Your task to perform on an android device: Go to internet settings Image 0: 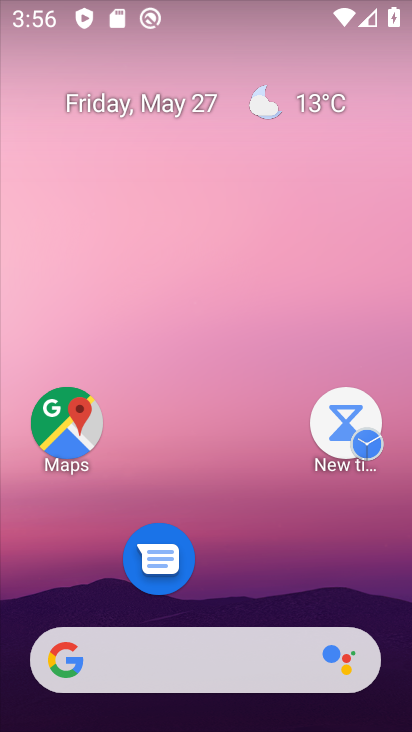
Step 0: drag from (300, 507) to (273, 1)
Your task to perform on an android device: Go to internet settings Image 1: 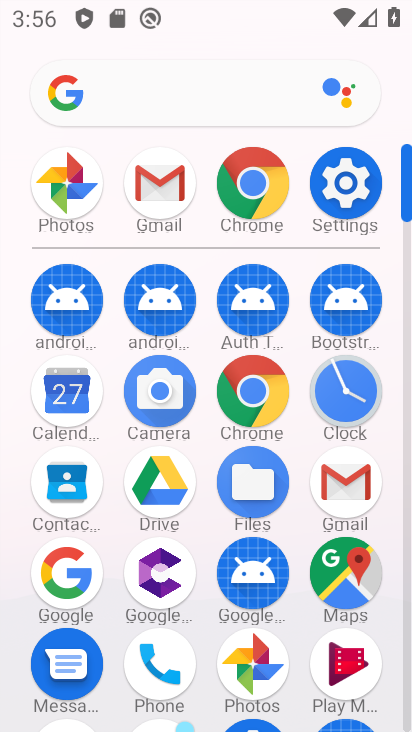
Step 1: click (349, 184)
Your task to perform on an android device: Go to internet settings Image 2: 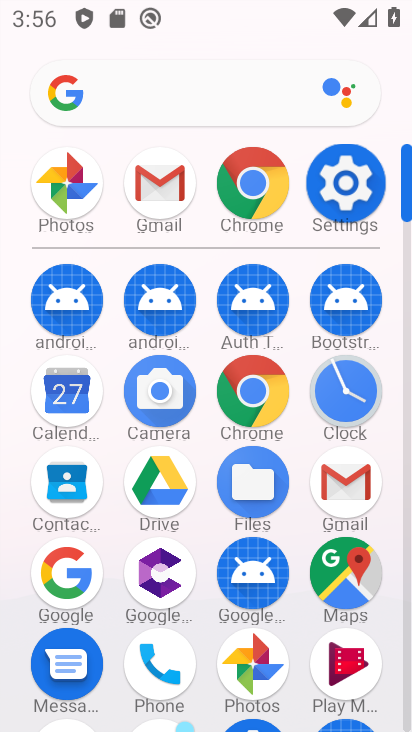
Step 2: click (349, 184)
Your task to perform on an android device: Go to internet settings Image 3: 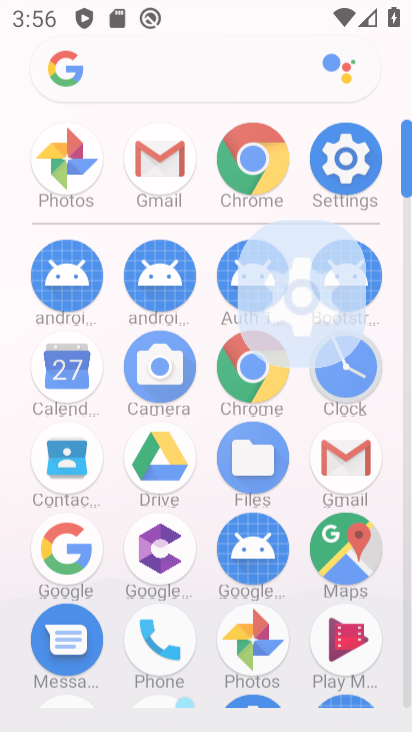
Step 3: click (349, 184)
Your task to perform on an android device: Go to internet settings Image 4: 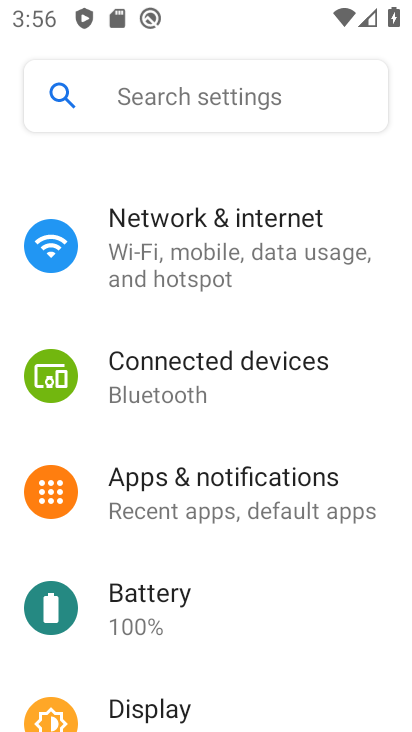
Step 4: click (349, 184)
Your task to perform on an android device: Go to internet settings Image 5: 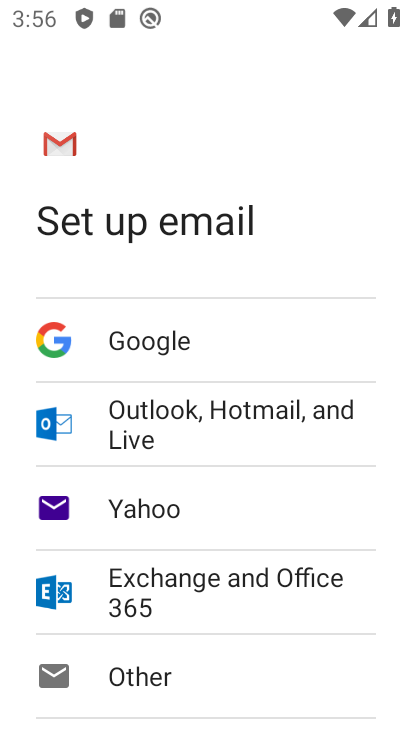
Step 5: drag from (279, 537) to (203, 143)
Your task to perform on an android device: Go to internet settings Image 6: 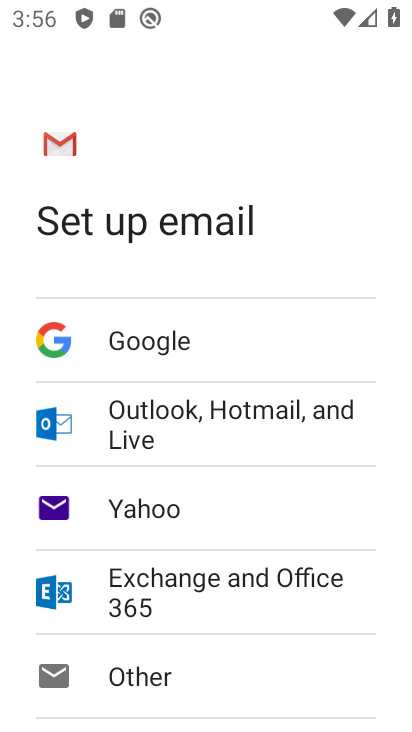
Step 6: drag from (264, 471) to (202, 152)
Your task to perform on an android device: Go to internet settings Image 7: 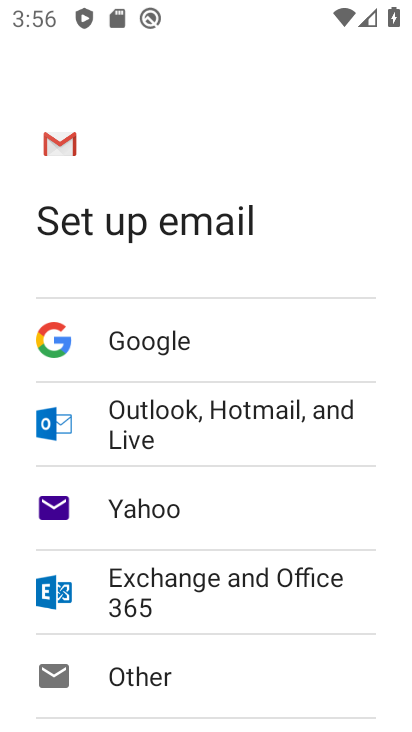
Step 7: drag from (267, 449) to (199, 41)
Your task to perform on an android device: Go to internet settings Image 8: 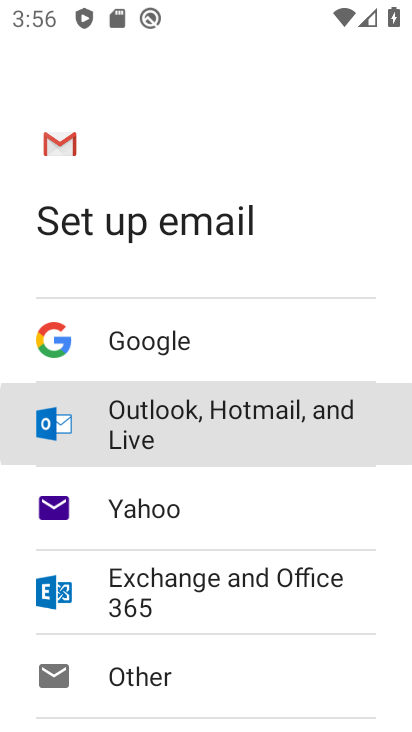
Step 8: drag from (256, 531) to (216, 131)
Your task to perform on an android device: Go to internet settings Image 9: 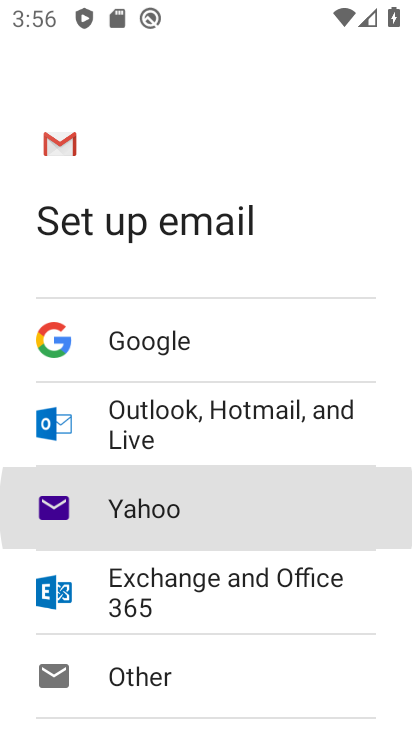
Step 9: drag from (223, 568) to (194, 142)
Your task to perform on an android device: Go to internet settings Image 10: 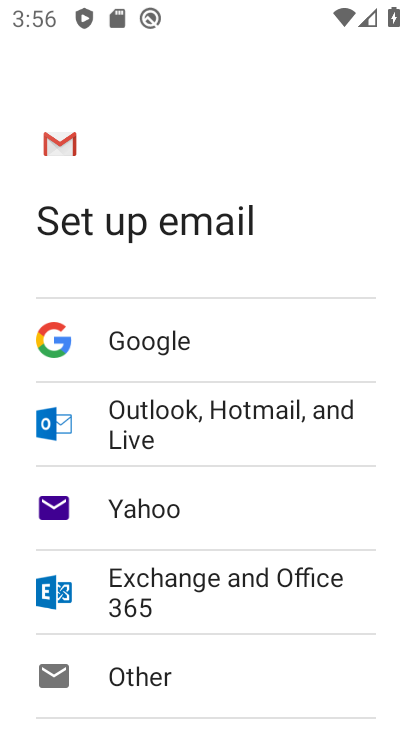
Step 10: drag from (286, 502) to (250, 151)
Your task to perform on an android device: Go to internet settings Image 11: 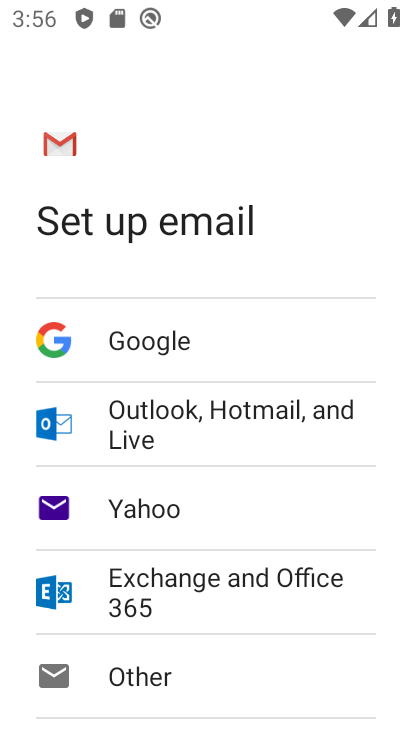
Step 11: drag from (278, 438) to (263, 140)
Your task to perform on an android device: Go to internet settings Image 12: 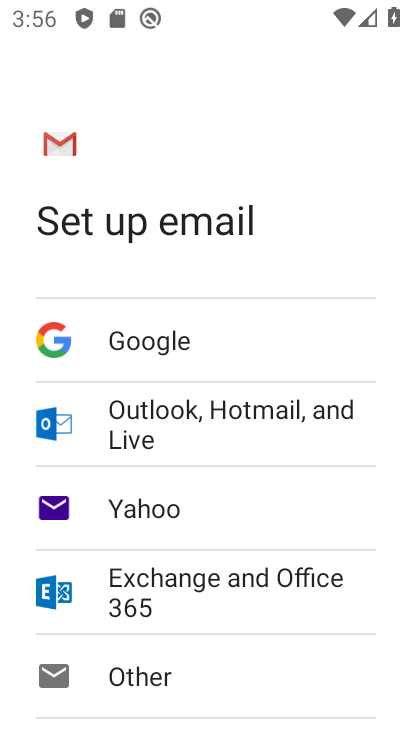
Step 12: drag from (265, 485) to (210, 106)
Your task to perform on an android device: Go to internet settings Image 13: 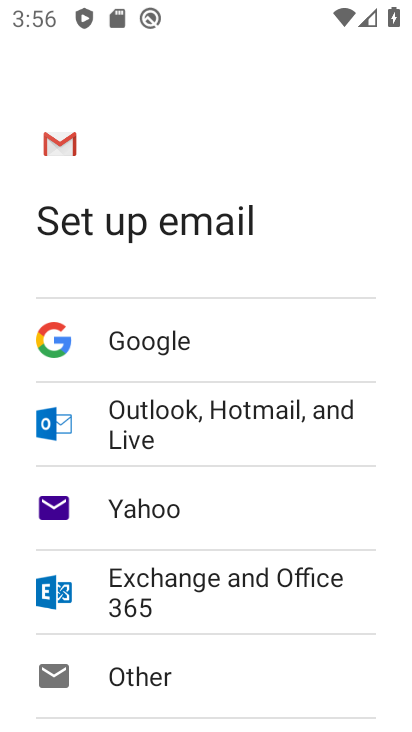
Step 13: press back button
Your task to perform on an android device: Go to internet settings Image 14: 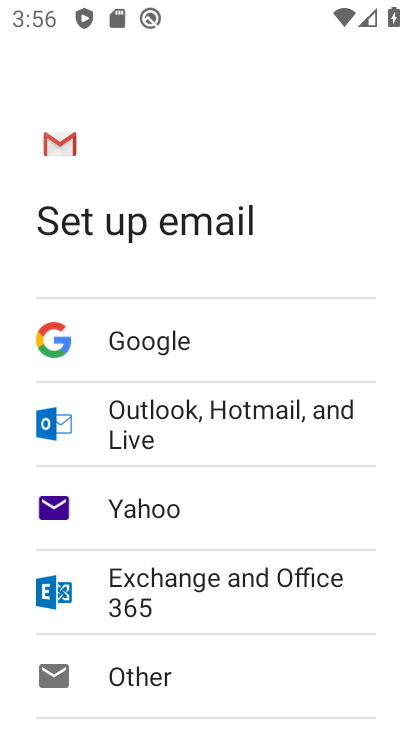
Step 14: press back button
Your task to perform on an android device: Go to internet settings Image 15: 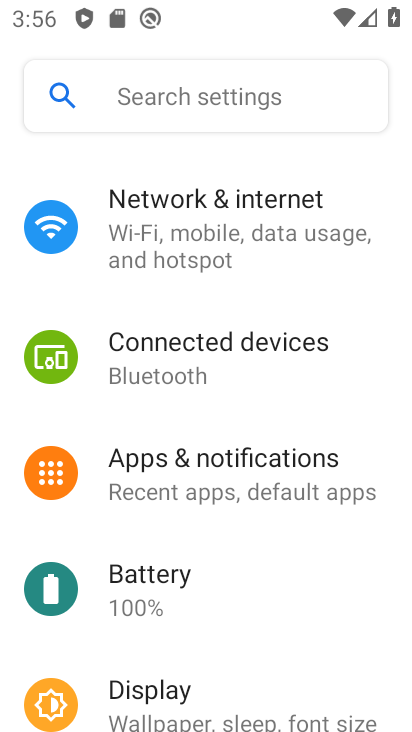
Step 15: press back button
Your task to perform on an android device: Go to internet settings Image 16: 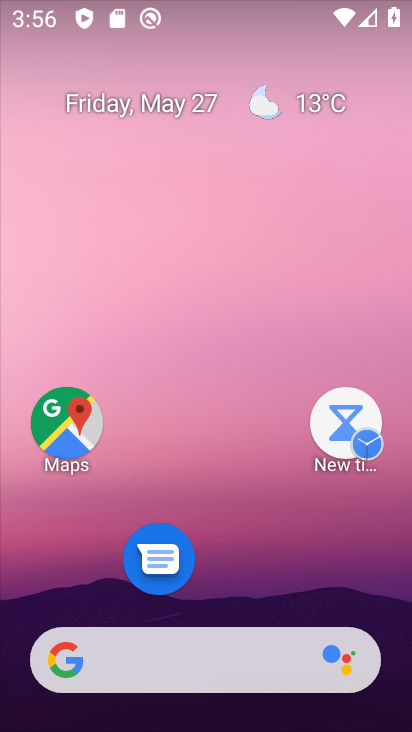
Step 16: drag from (175, 174) to (163, 139)
Your task to perform on an android device: Go to internet settings Image 17: 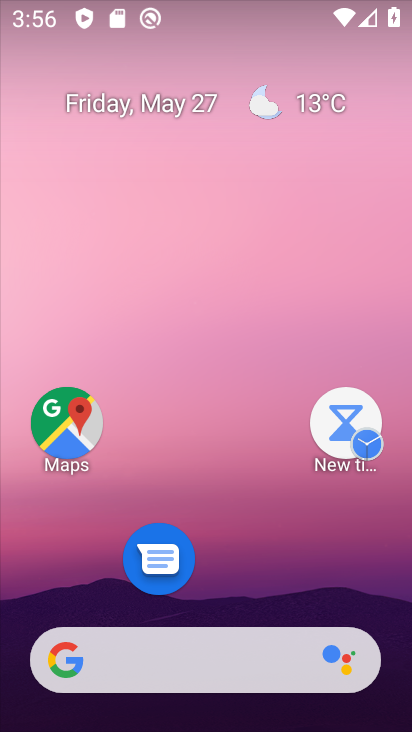
Step 17: drag from (248, 364) to (154, 97)
Your task to perform on an android device: Go to internet settings Image 18: 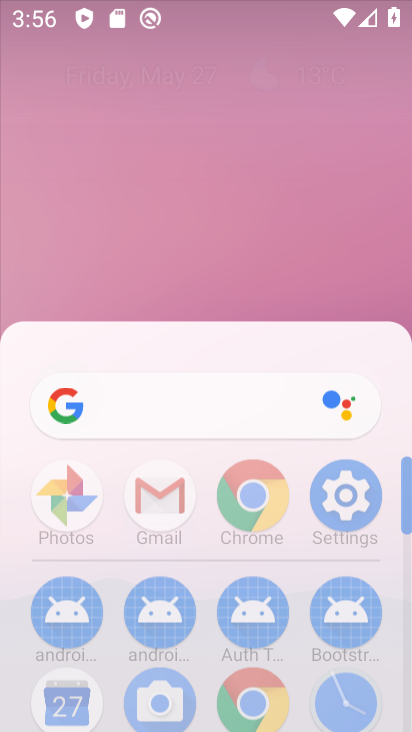
Step 18: drag from (224, 436) to (134, 163)
Your task to perform on an android device: Go to internet settings Image 19: 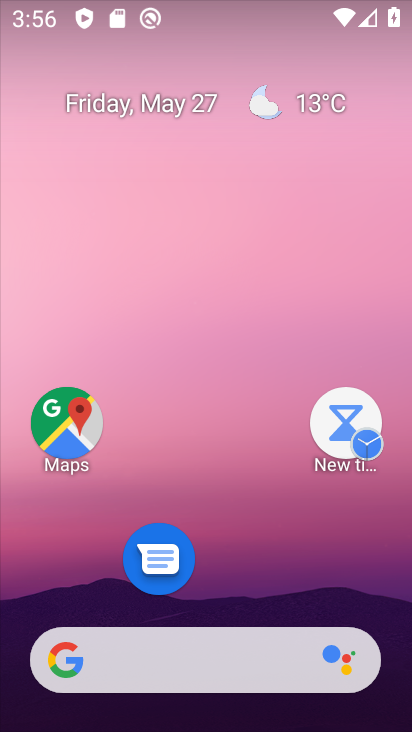
Step 19: drag from (237, 515) to (110, 73)
Your task to perform on an android device: Go to internet settings Image 20: 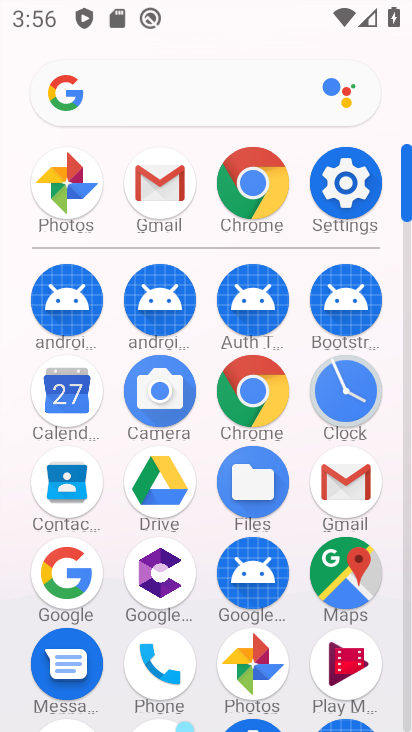
Step 20: drag from (183, 410) to (75, 33)
Your task to perform on an android device: Go to internet settings Image 21: 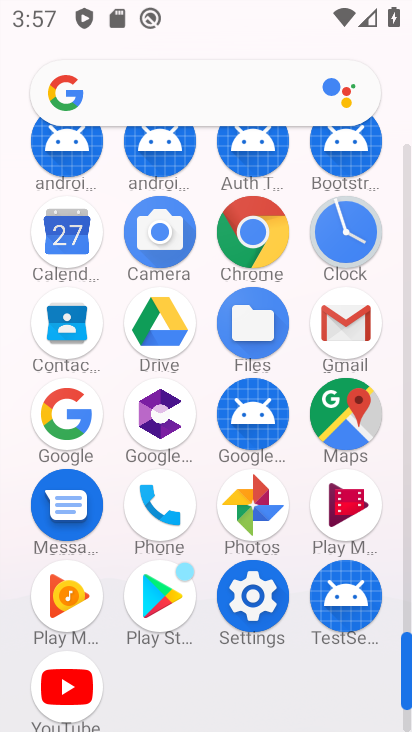
Step 21: click (252, 588)
Your task to perform on an android device: Go to internet settings Image 22: 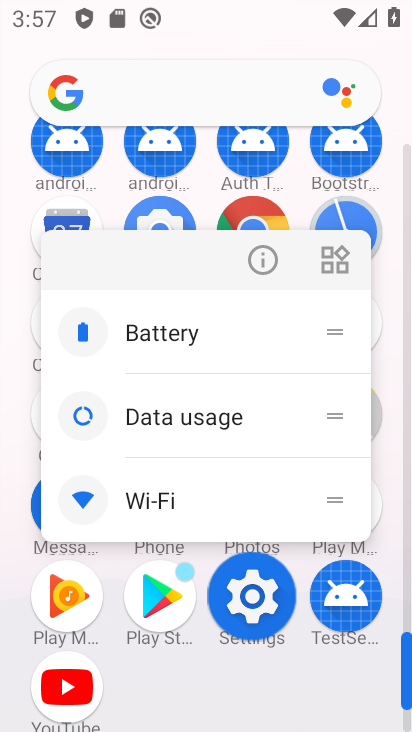
Step 22: click (252, 588)
Your task to perform on an android device: Go to internet settings Image 23: 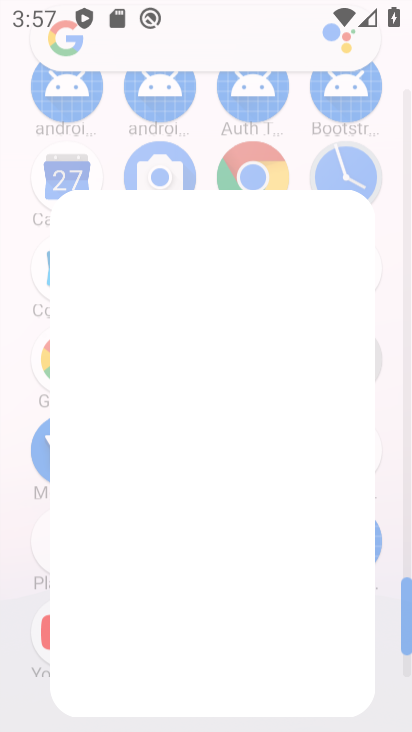
Step 23: click (257, 586)
Your task to perform on an android device: Go to internet settings Image 24: 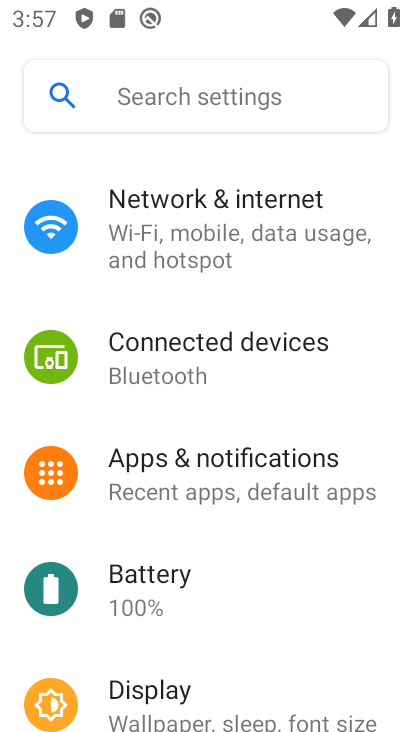
Step 24: click (257, 586)
Your task to perform on an android device: Go to internet settings Image 25: 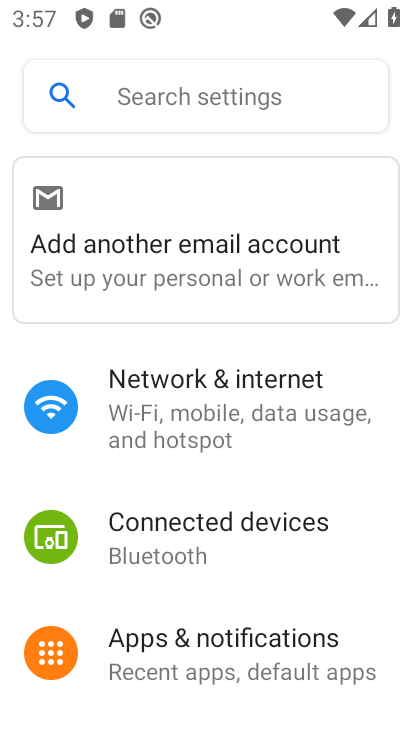
Step 25: click (200, 383)
Your task to perform on an android device: Go to internet settings Image 26: 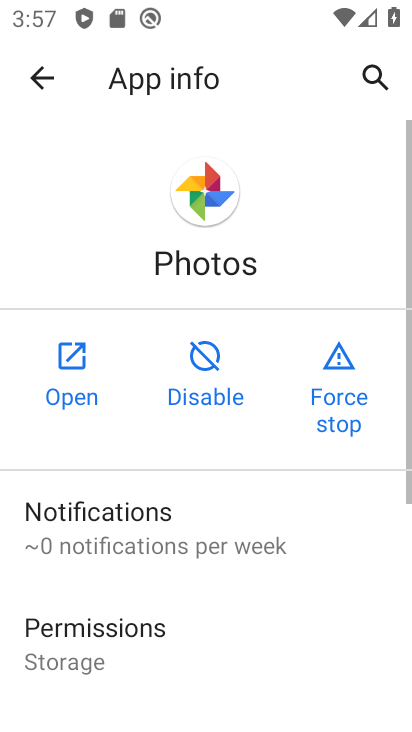
Step 26: click (92, 545)
Your task to perform on an android device: Go to internet settings Image 27: 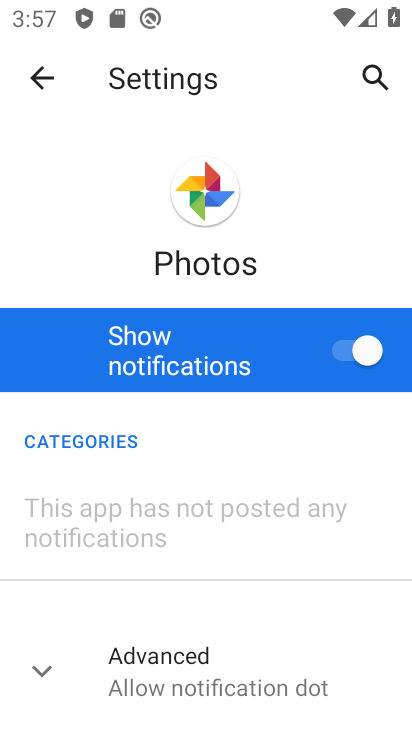
Step 27: task complete